Your task to perform on an android device: Go to ESPN.com Image 0: 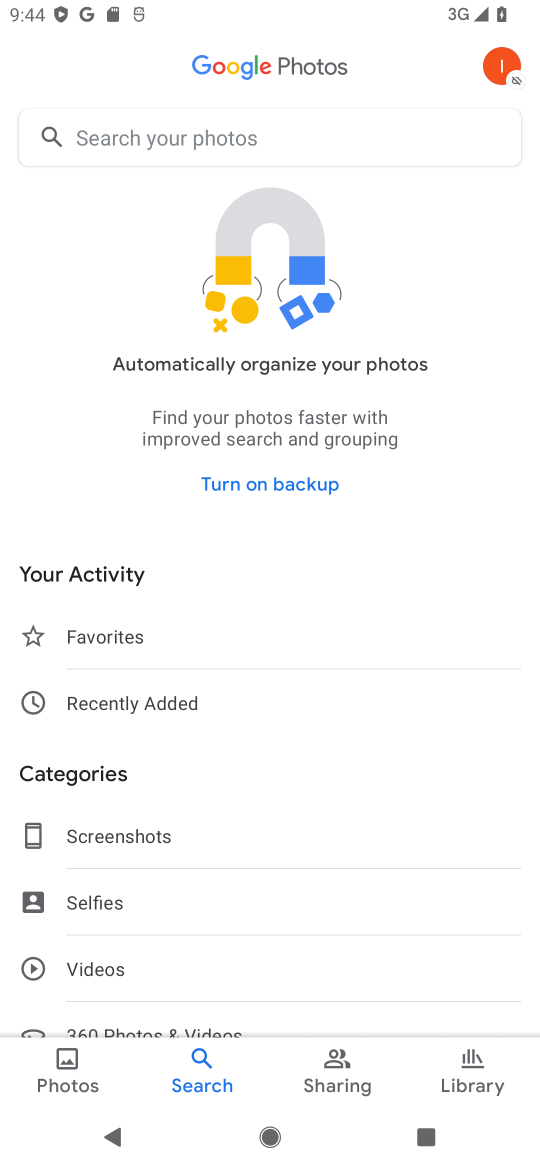
Step 0: press home button
Your task to perform on an android device: Go to ESPN.com Image 1: 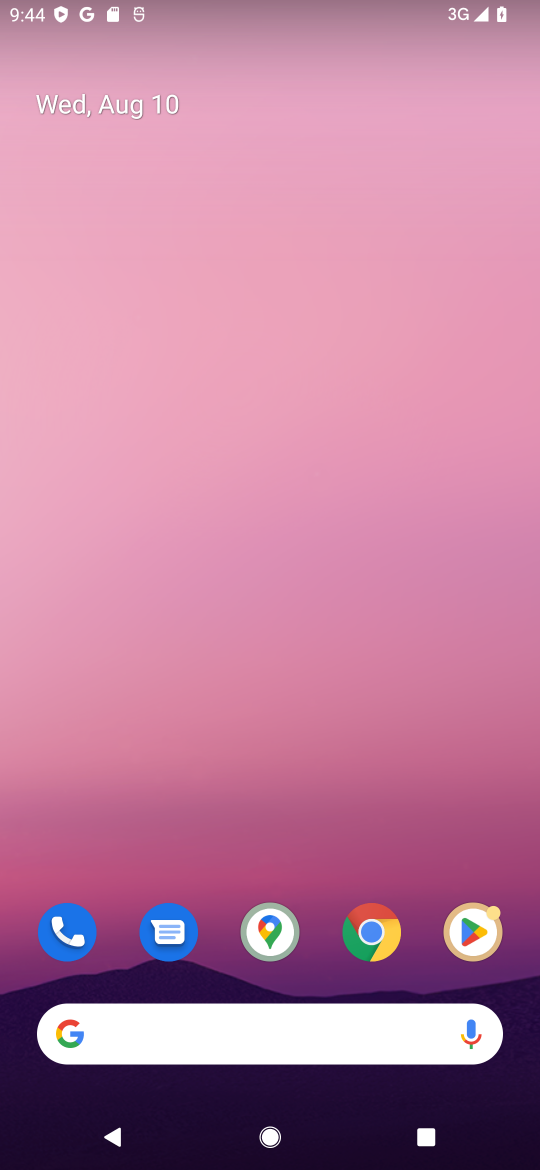
Step 1: click (377, 942)
Your task to perform on an android device: Go to ESPN.com Image 2: 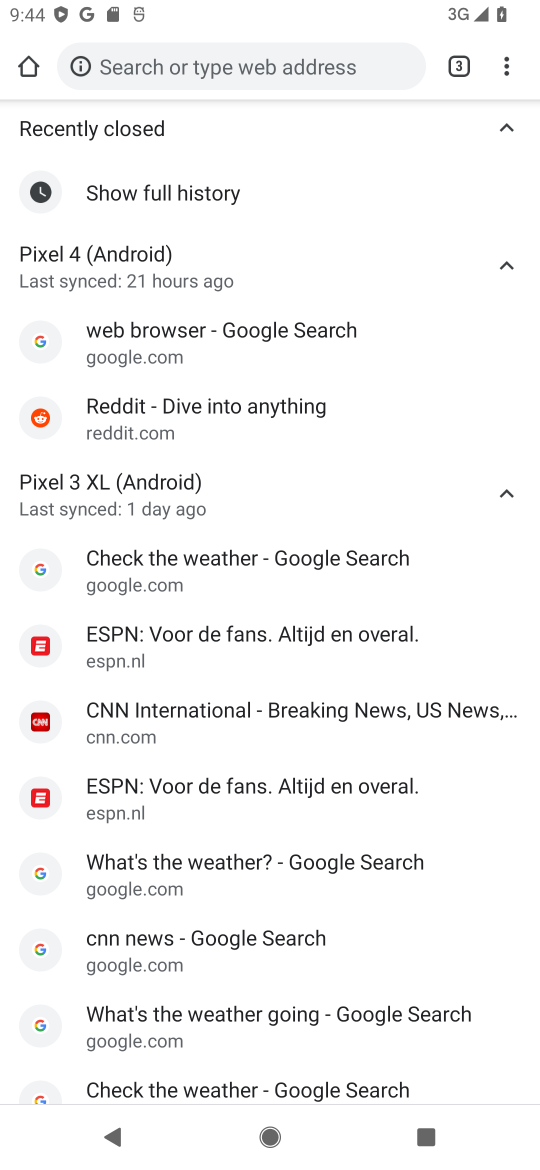
Step 2: click (505, 65)
Your task to perform on an android device: Go to ESPN.com Image 3: 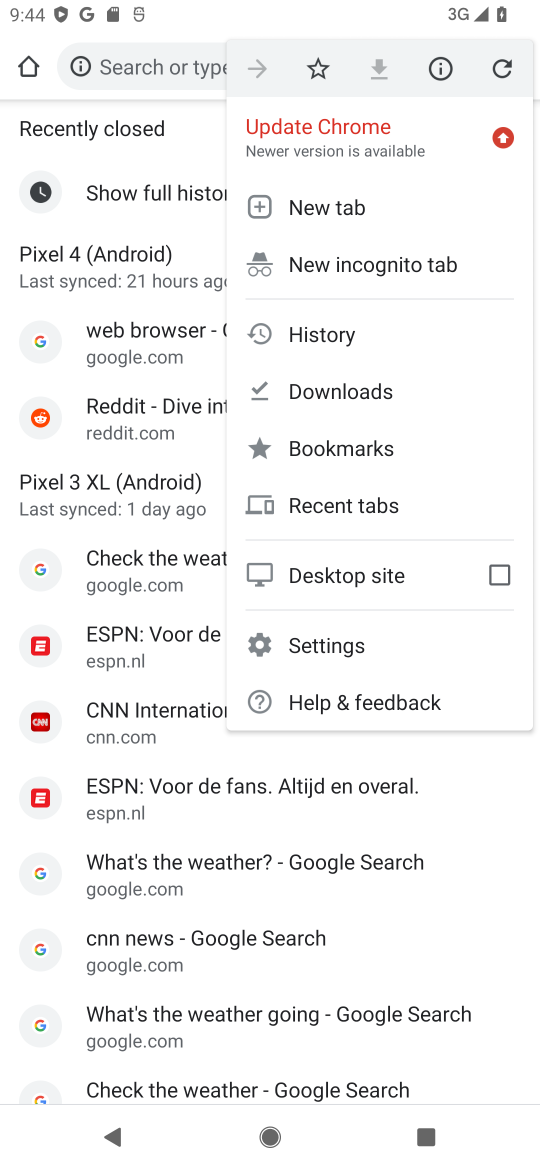
Step 3: click (315, 205)
Your task to perform on an android device: Go to ESPN.com Image 4: 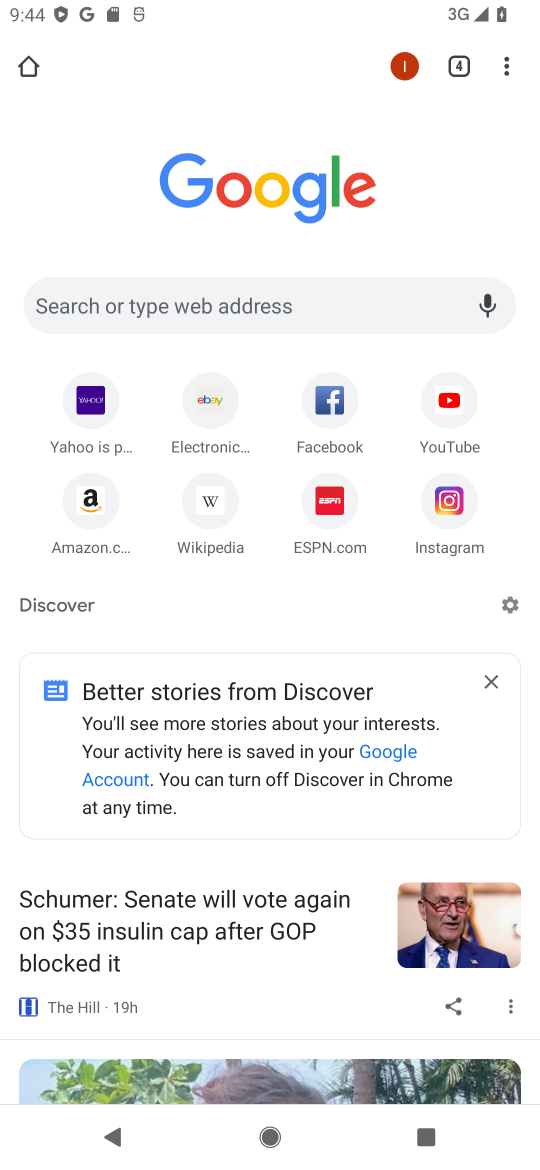
Step 4: click (324, 496)
Your task to perform on an android device: Go to ESPN.com Image 5: 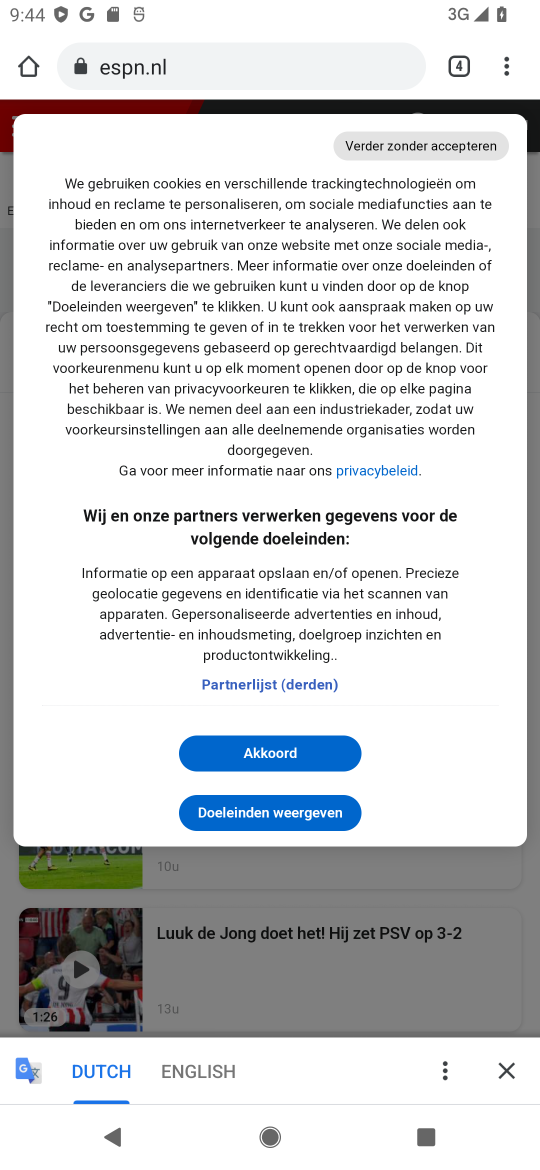
Step 5: click (265, 746)
Your task to perform on an android device: Go to ESPN.com Image 6: 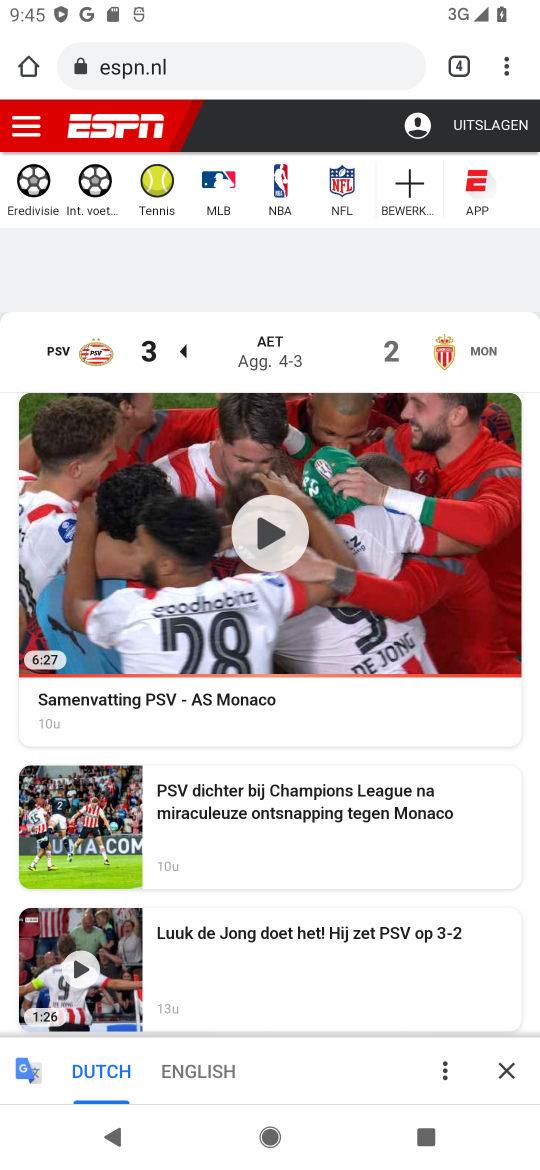
Step 6: task complete